Your task to perform on an android device: check storage Image 0: 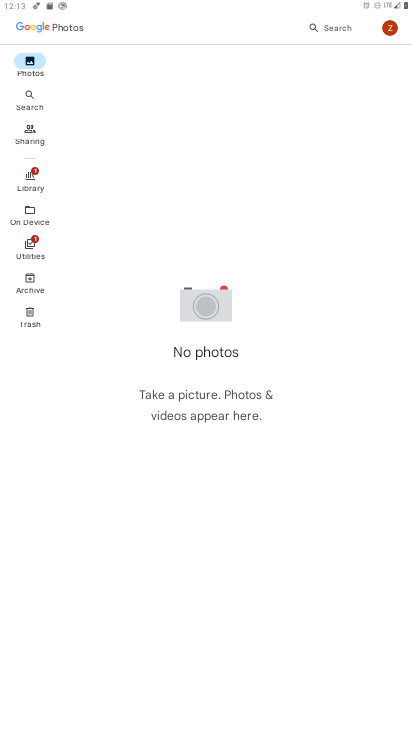
Step 0: press home button
Your task to perform on an android device: check storage Image 1: 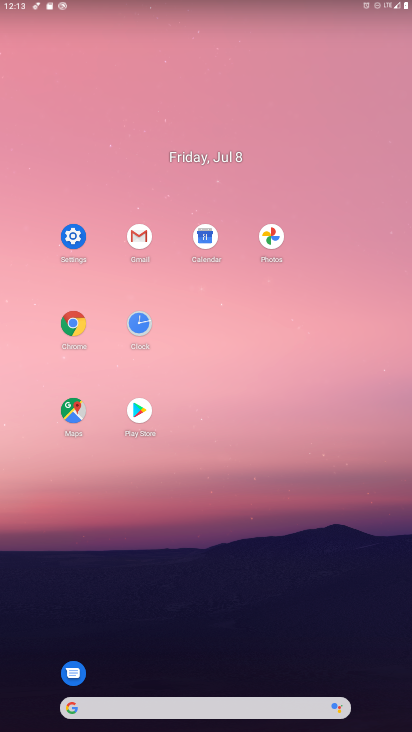
Step 1: click (67, 228)
Your task to perform on an android device: check storage Image 2: 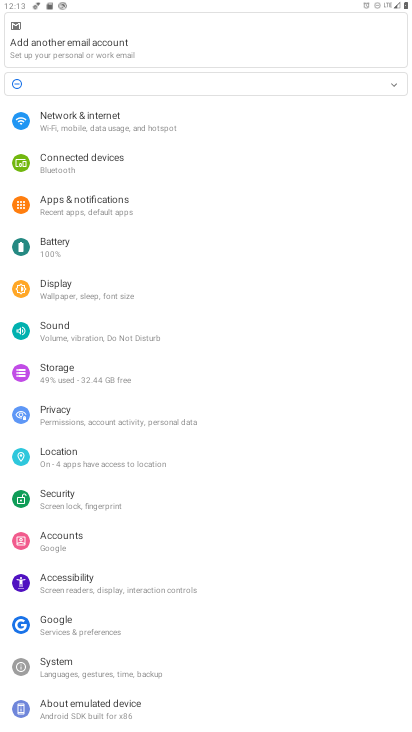
Step 2: click (147, 378)
Your task to perform on an android device: check storage Image 3: 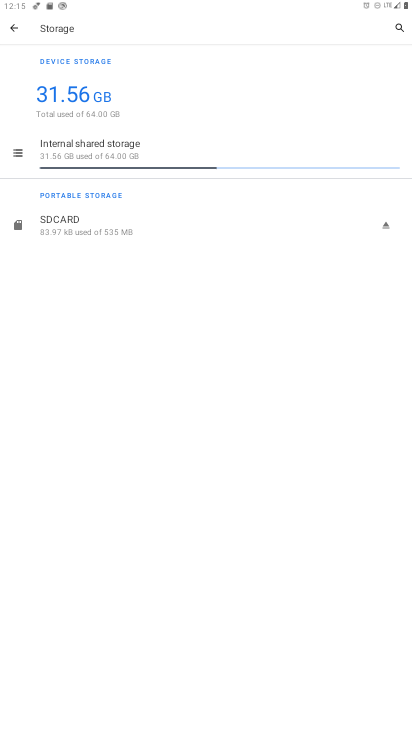
Step 3: press home button
Your task to perform on an android device: check storage Image 4: 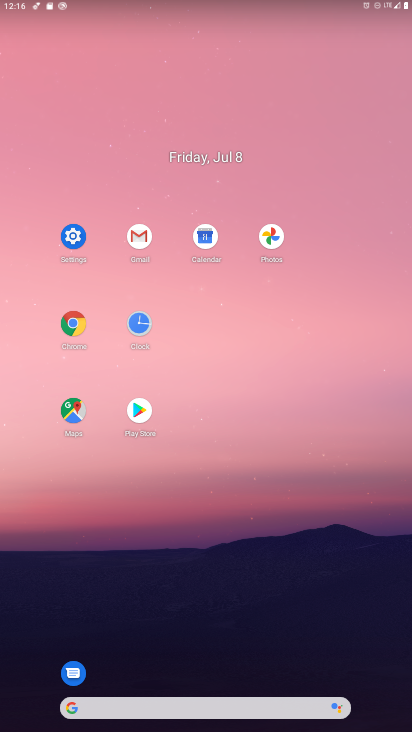
Step 4: click (71, 234)
Your task to perform on an android device: check storage Image 5: 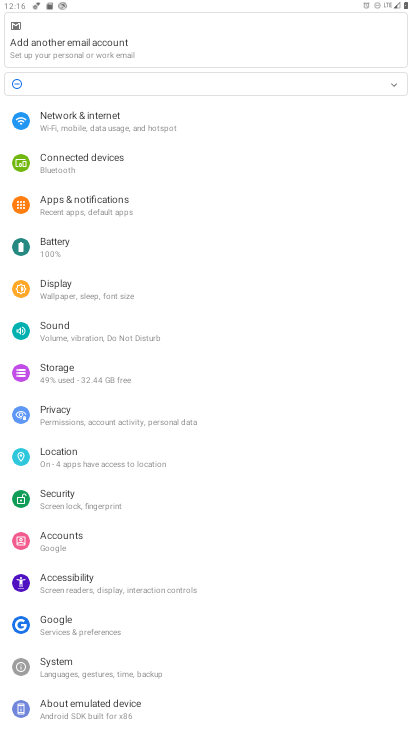
Step 5: click (105, 369)
Your task to perform on an android device: check storage Image 6: 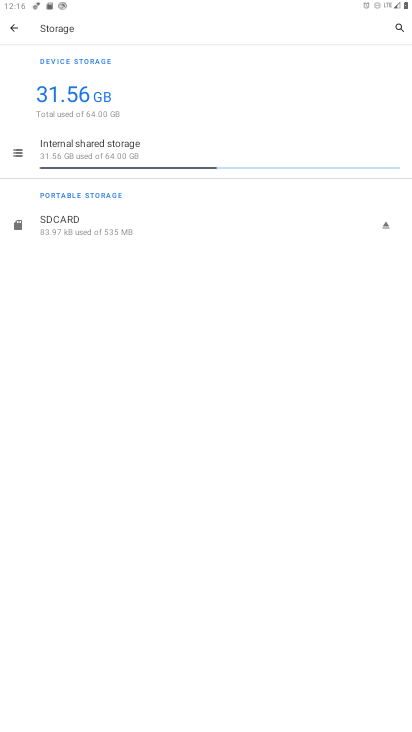
Step 6: task complete